Your task to perform on an android device: allow notifications from all sites in the chrome app Image 0: 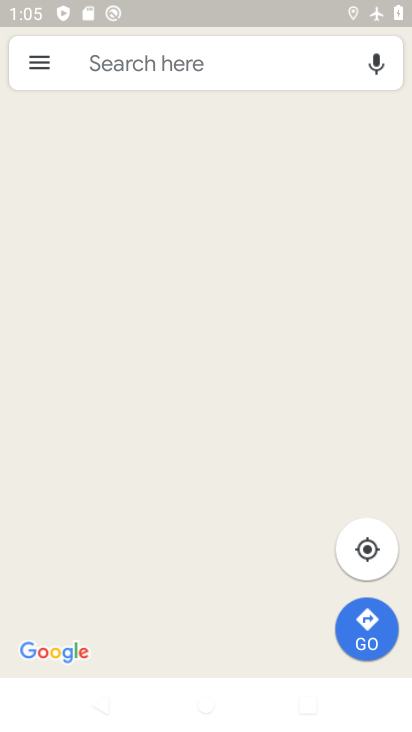
Step 0: press back button
Your task to perform on an android device: allow notifications from all sites in the chrome app Image 1: 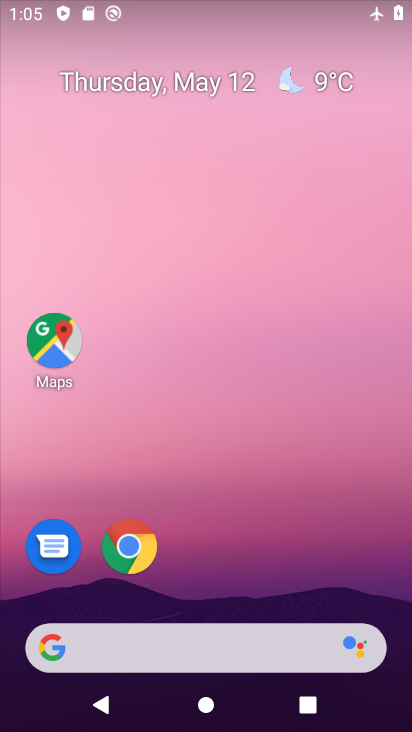
Step 1: drag from (222, 666) to (311, 399)
Your task to perform on an android device: allow notifications from all sites in the chrome app Image 2: 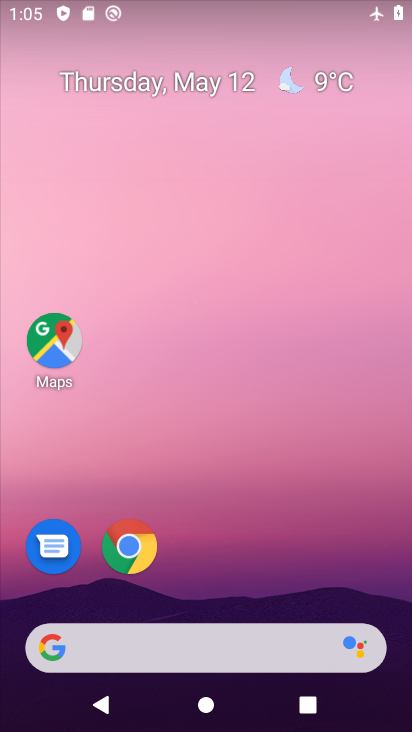
Step 2: drag from (265, 665) to (375, 238)
Your task to perform on an android device: allow notifications from all sites in the chrome app Image 3: 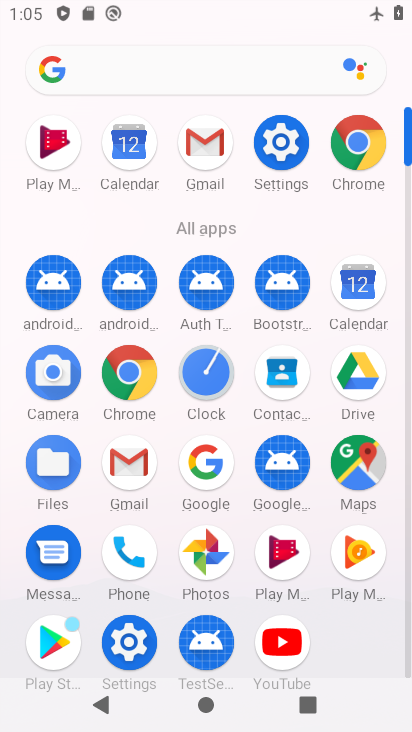
Step 3: click (351, 142)
Your task to perform on an android device: allow notifications from all sites in the chrome app Image 4: 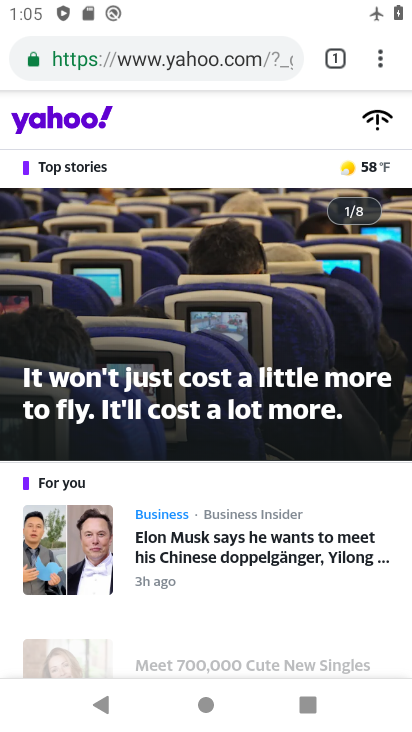
Step 4: click (382, 64)
Your task to perform on an android device: allow notifications from all sites in the chrome app Image 5: 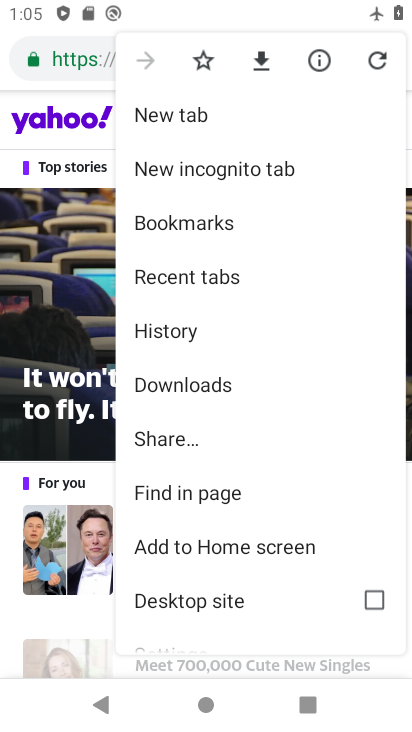
Step 5: drag from (168, 620) to (222, 484)
Your task to perform on an android device: allow notifications from all sites in the chrome app Image 6: 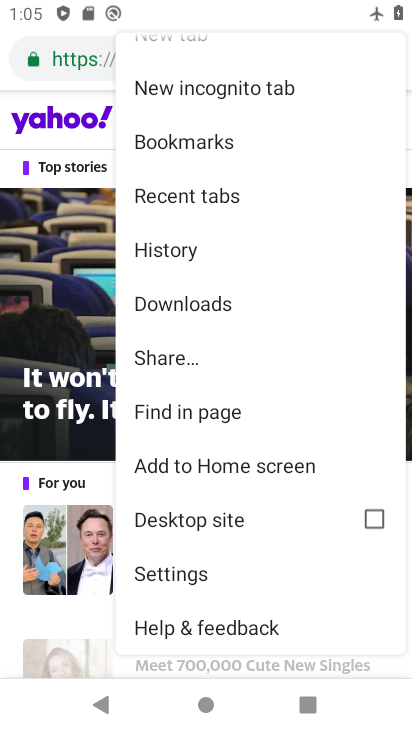
Step 6: click (179, 569)
Your task to perform on an android device: allow notifications from all sites in the chrome app Image 7: 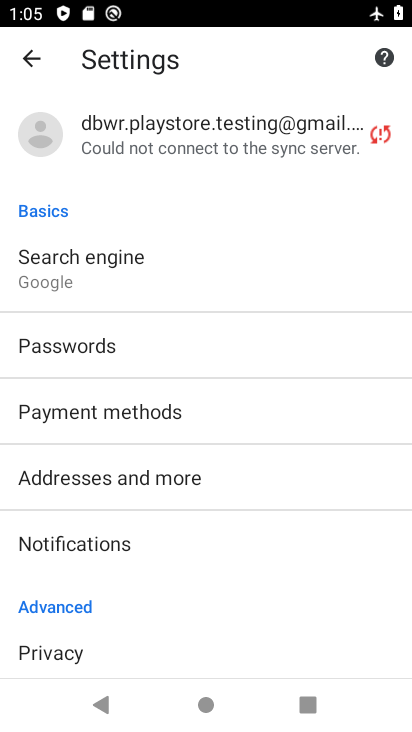
Step 7: drag from (154, 550) to (245, 370)
Your task to perform on an android device: allow notifications from all sites in the chrome app Image 8: 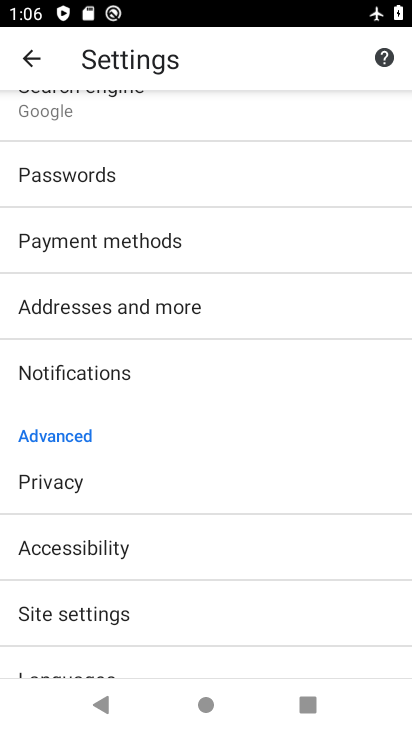
Step 8: drag from (160, 609) to (215, 472)
Your task to perform on an android device: allow notifications from all sites in the chrome app Image 9: 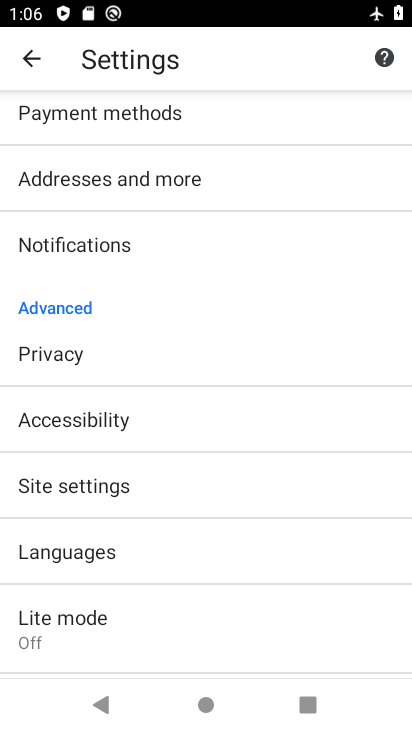
Step 9: click (94, 490)
Your task to perform on an android device: allow notifications from all sites in the chrome app Image 10: 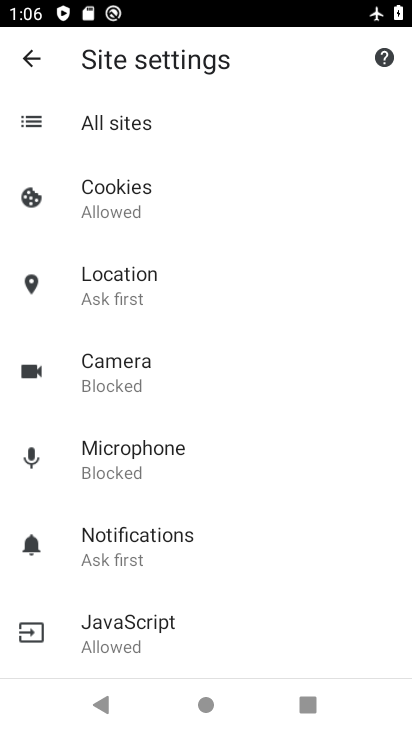
Step 10: click (145, 546)
Your task to perform on an android device: allow notifications from all sites in the chrome app Image 11: 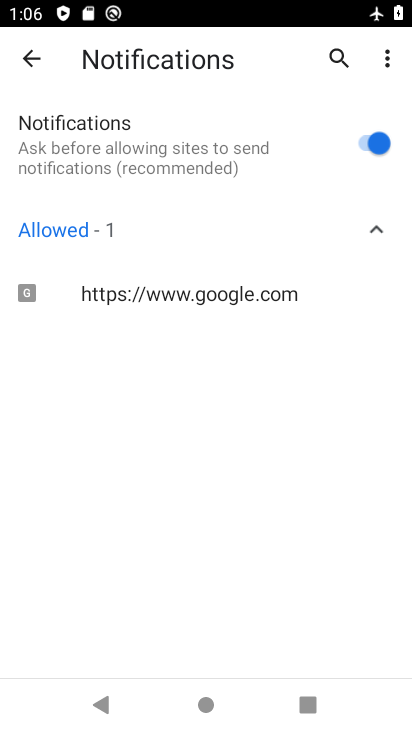
Step 11: click (363, 148)
Your task to perform on an android device: allow notifications from all sites in the chrome app Image 12: 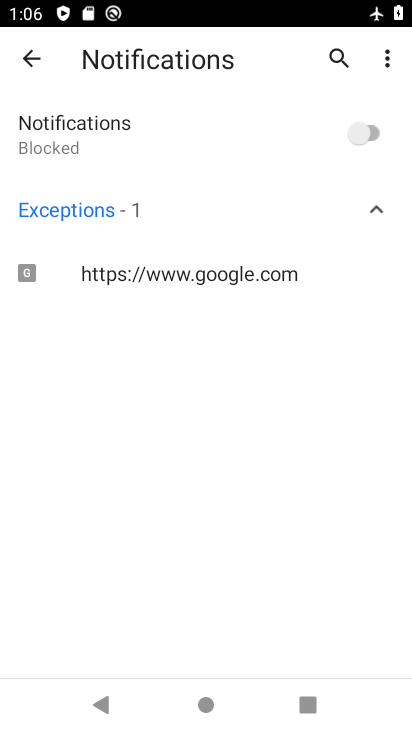
Step 12: click (361, 150)
Your task to perform on an android device: allow notifications from all sites in the chrome app Image 13: 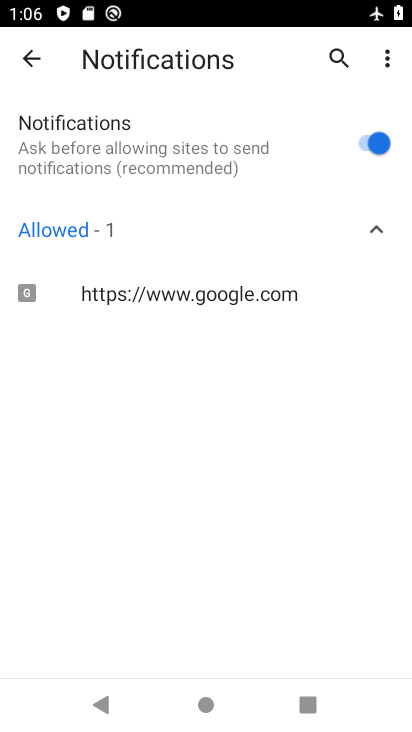
Step 13: task complete